Your task to perform on an android device: turn on the 24-hour format for clock Image 0: 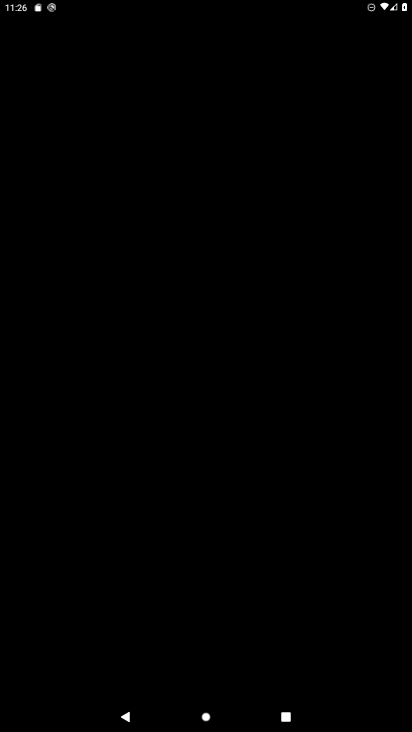
Step 0: drag from (249, 619) to (229, 235)
Your task to perform on an android device: turn on the 24-hour format for clock Image 1: 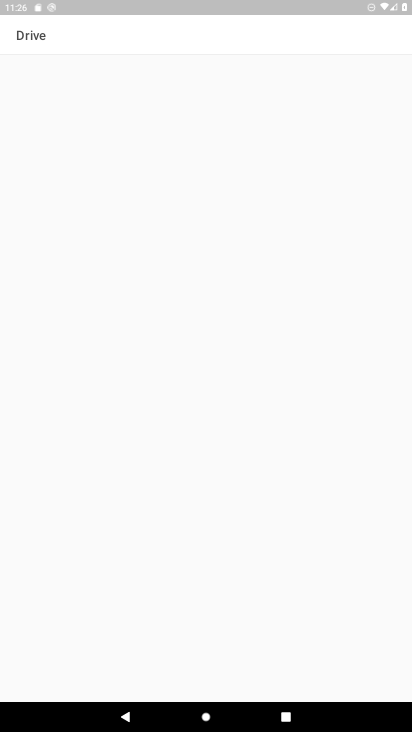
Step 1: press home button
Your task to perform on an android device: turn on the 24-hour format for clock Image 2: 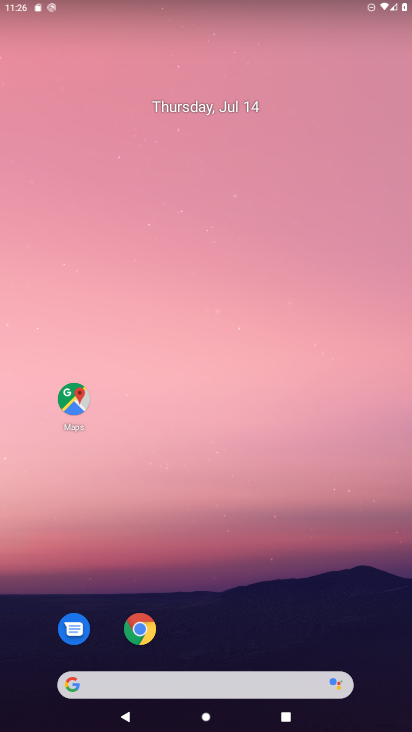
Step 2: drag from (199, 625) to (359, 45)
Your task to perform on an android device: turn on the 24-hour format for clock Image 3: 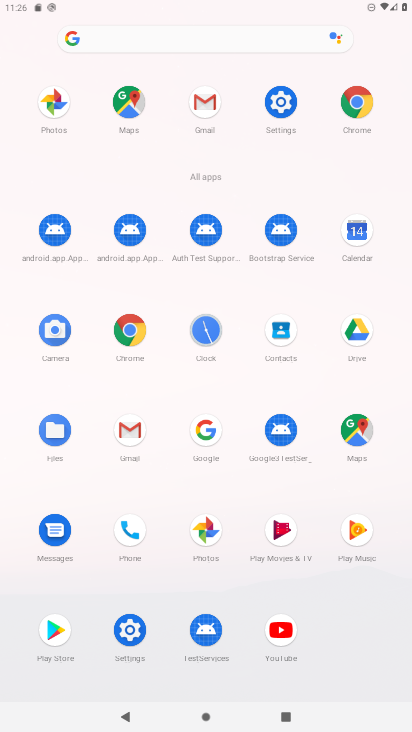
Step 3: click (270, 93)
Your task to perform on an android device: turn on the 24-hour format for clock Image 4: 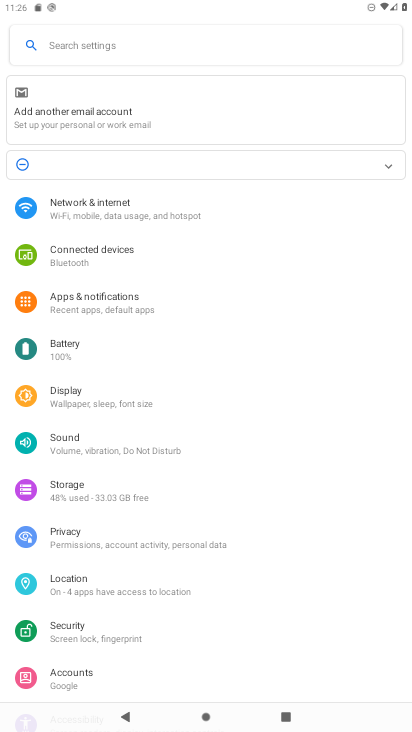
Step 4: press back button
Your task to perform on an android device: turn on the 24-hour format for clock Image 5: 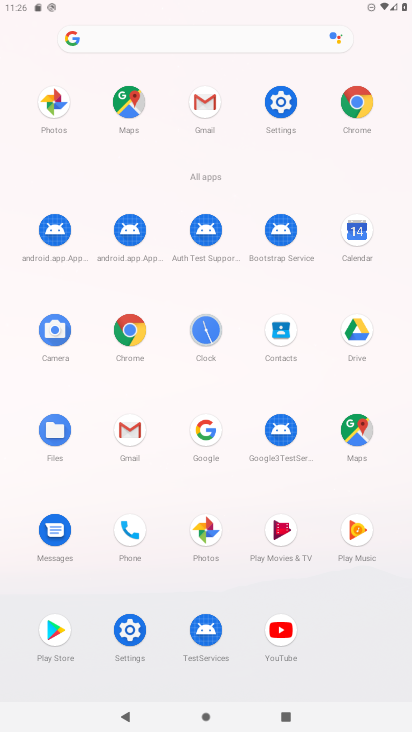
Step 5: click (214, 326)
Your task to perform on an android device: turn on the 24-hour format for clock Image 6: 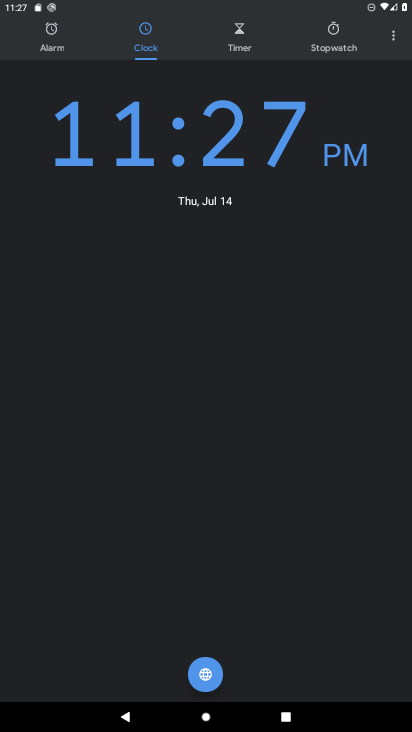
Step 6: click (401, 46)
Your task to perform on an android device: turn on the 24-hour format for clock Image 7: 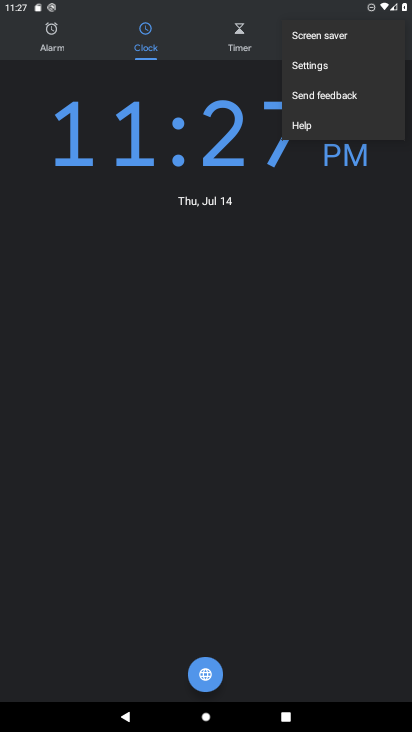
Step 7: click (353, 76)
Your task to perform on an android device: turn on the 24-hour format for clock Image 8: 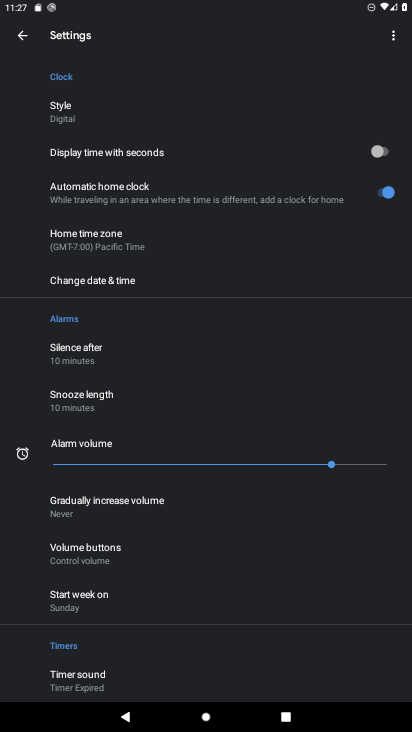
Step 8: click (151, 282)
Your task to perform on an android device: turn on the 24-hour format for clock Image 9: 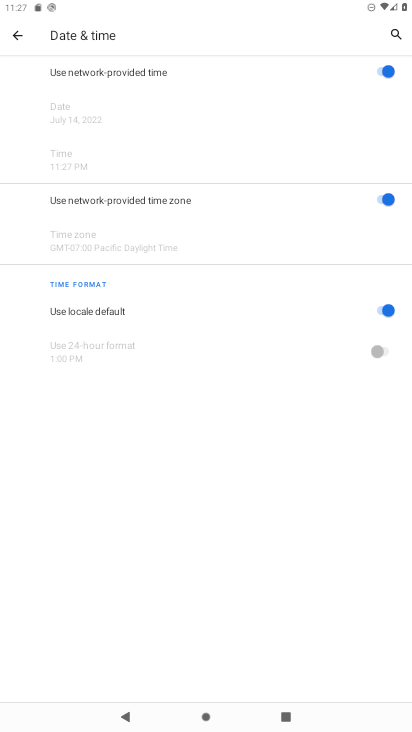
Step 9: click (260, 247)
Your task to perform on an android device: turn on the 24-hour format for clock Image 10: 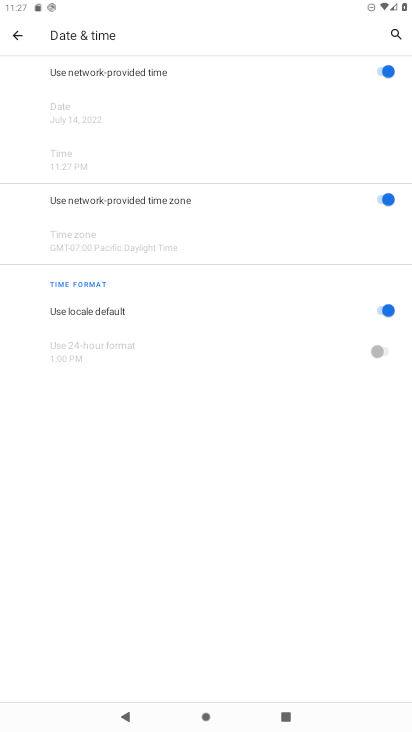
Step 10: click (386, 315)
Your task to perform on an android device: turn on the 24-hour format for clock Image 11: 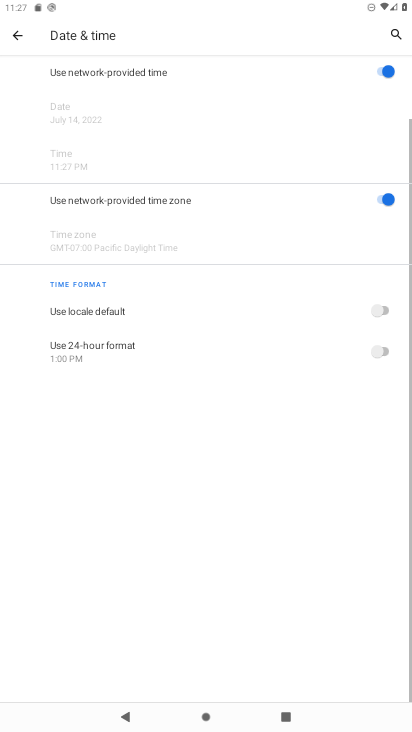
Step 11: click (375, 349)
Your task to perform on an android device: turn on the 24-hour format for clock Image 12: 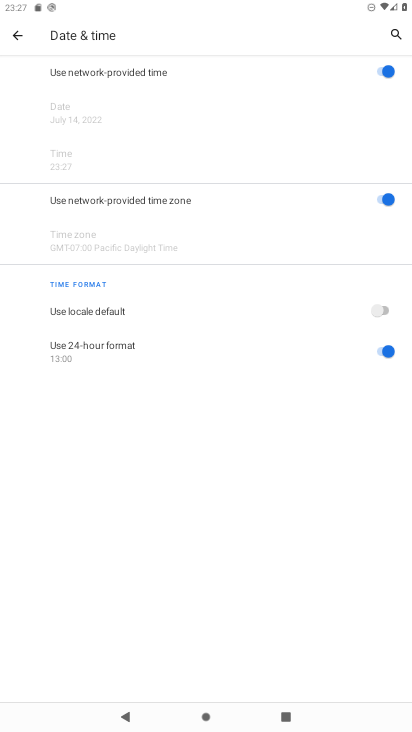
Step 12: click (390, 351)
Your task to perform on an android device: turn on the 24-hour format for clock Image 13: 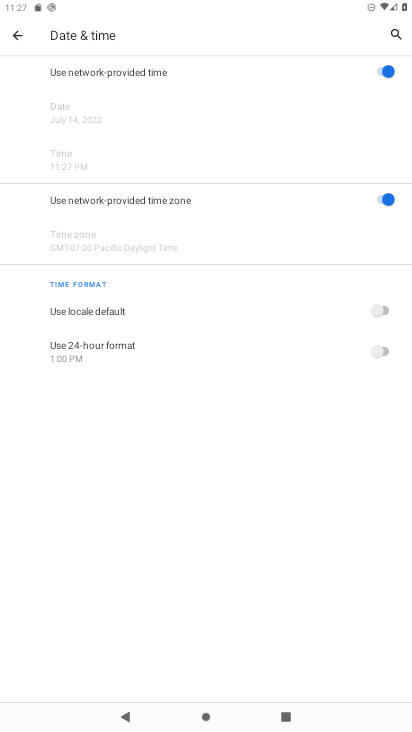
Step 13: click (370, 353)
Your task to perform on an android device: turn on the 24-hour format for clock Image 14: 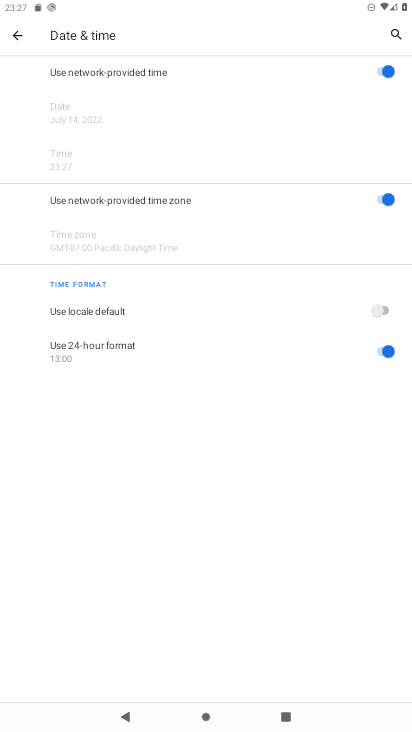
Step 14: task complete